Your task to perform on an android device: Open Yahoo.com Image 0: 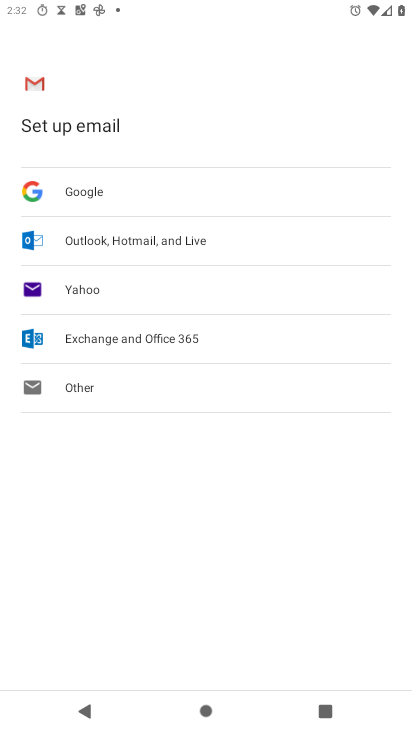
Step 0: press home button
Your task to perform on an android device: Open Yahoo.com Image 1: 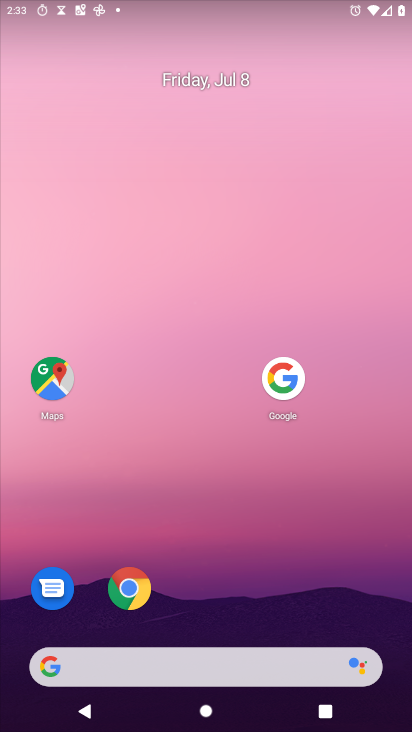
Step 1: click (136, 590)
Your task to perform on an android device: Open Yahoo.com Image 2: 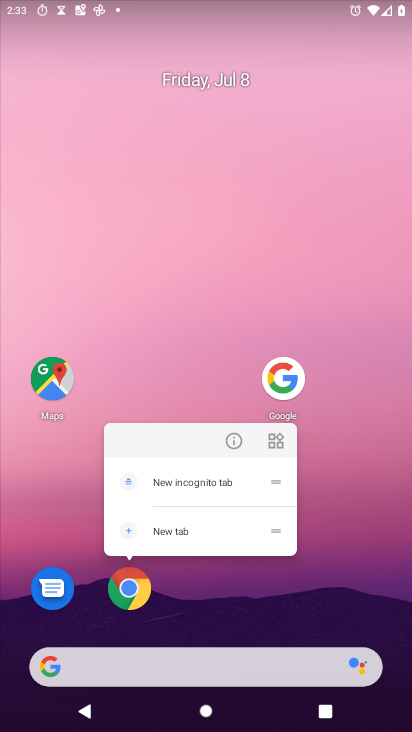
Step 2: click (131, 605)
Your task to perform on an android device: Open Yahoo.com Image 3: 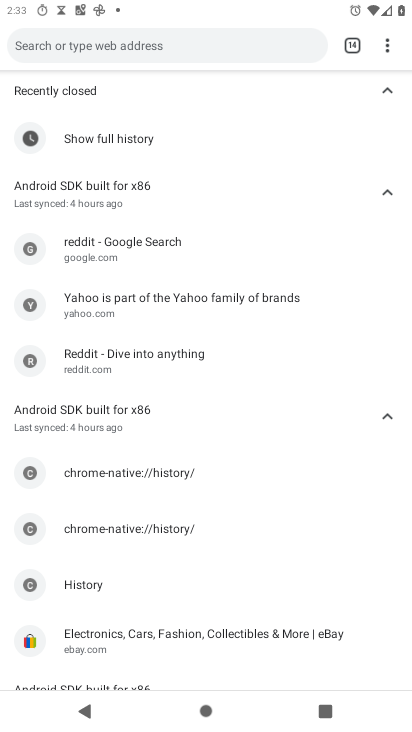
Step 3: drag from (387, 48) to (274, 91)
Your task to perform on an android device: Open Yahoo.com Image 4: 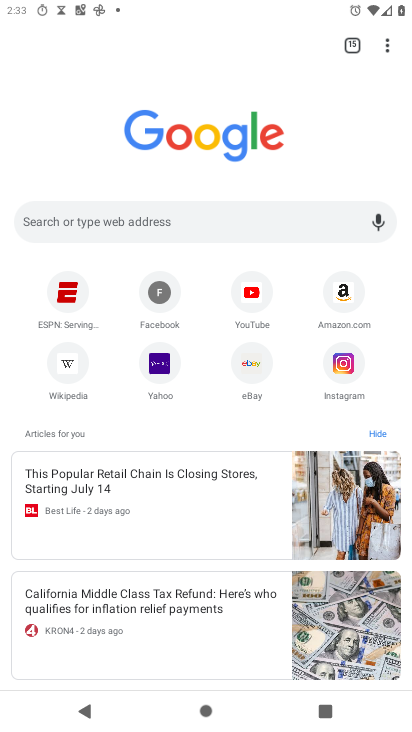
Step 4: click (157, 370)
Your task to perform on an android device: Open Yahoo.com Image 5: 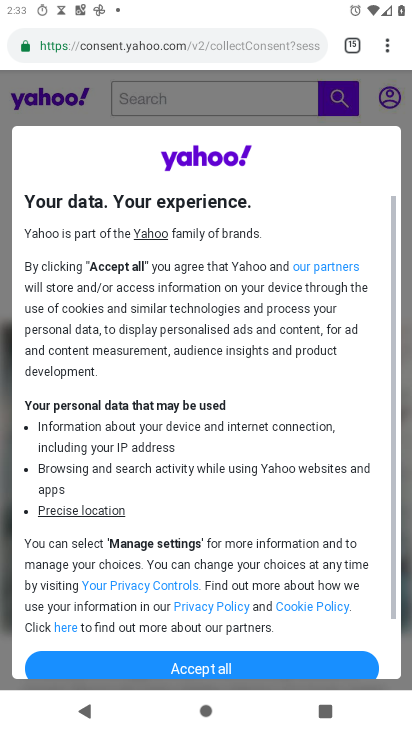
Step 5: click (194, 665)
Your task to perform on an android device: Open Yahoo.com Image 6: 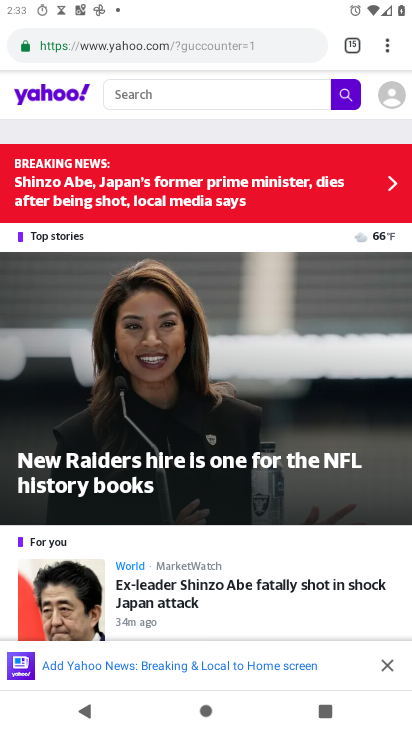
Step 6: task complete